Your task to perform on an android device: Open Chrome and go to settings Image 0: 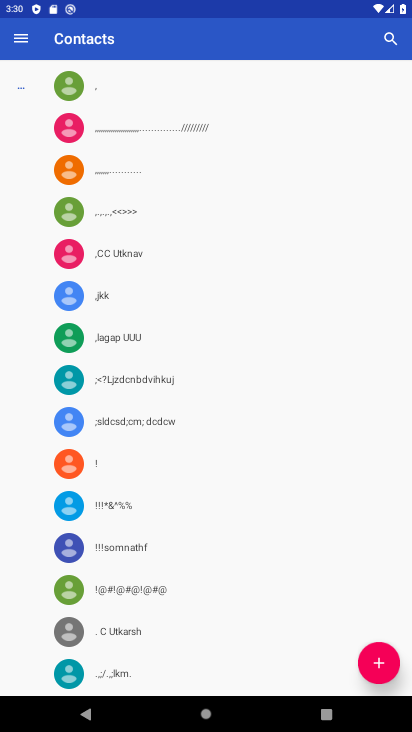
Step 0: press home button
Your task to perform on an android device: Open Chrome and go to settings Image 1: 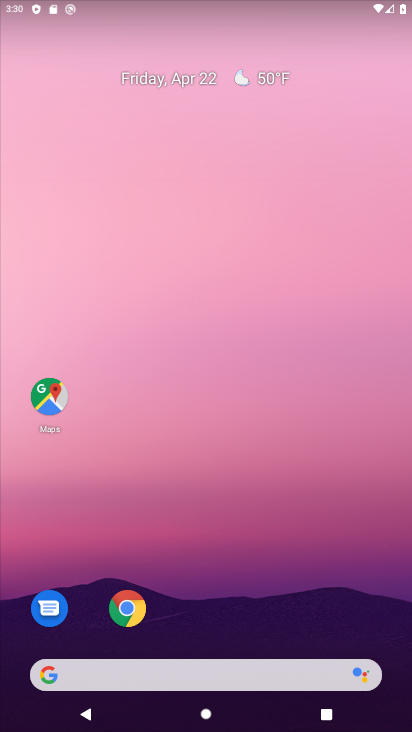
Step 1: click (126, 607)
Your task to perform on an android device: Open Chrome and go to settings Image 2: 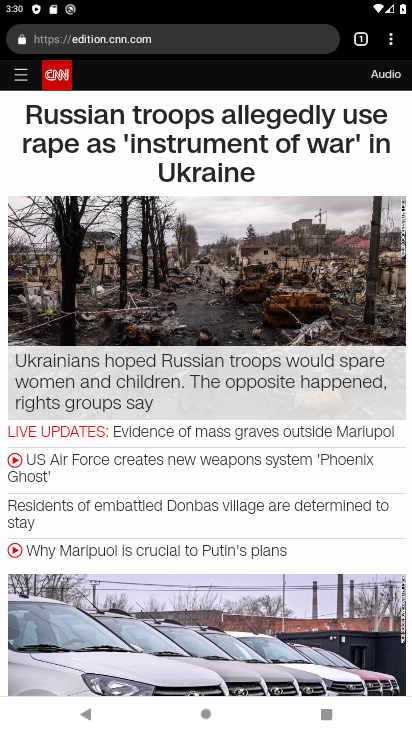
Step 2: task complete